Your task to perform on an android device: Add logitech g903 to the cart on target Image 0: 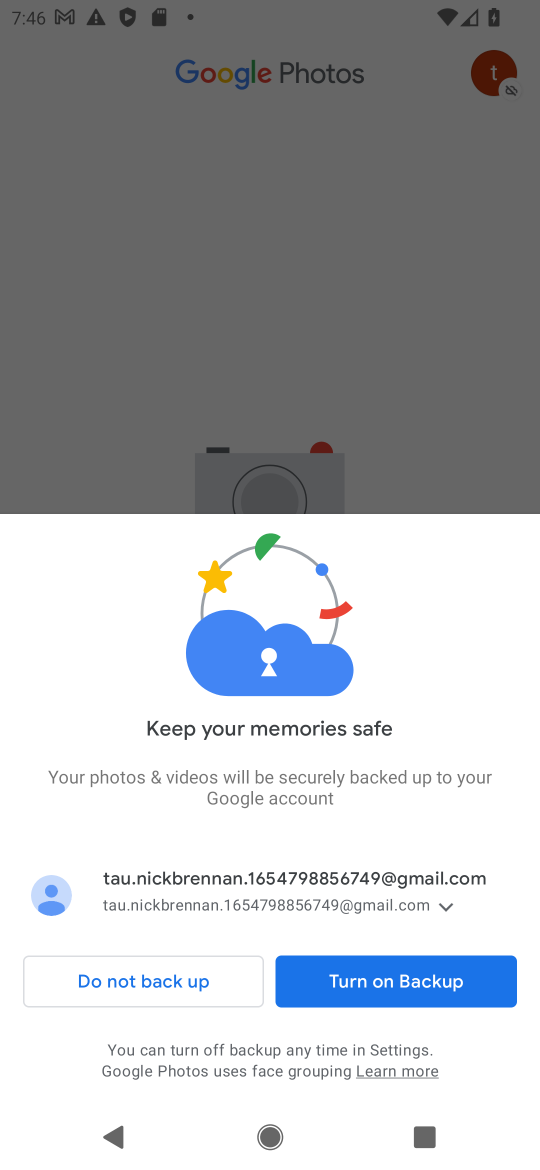
Step 0: press home button
Your task to perform on an android device: Add logitech g903 to the cart on target Image 1: 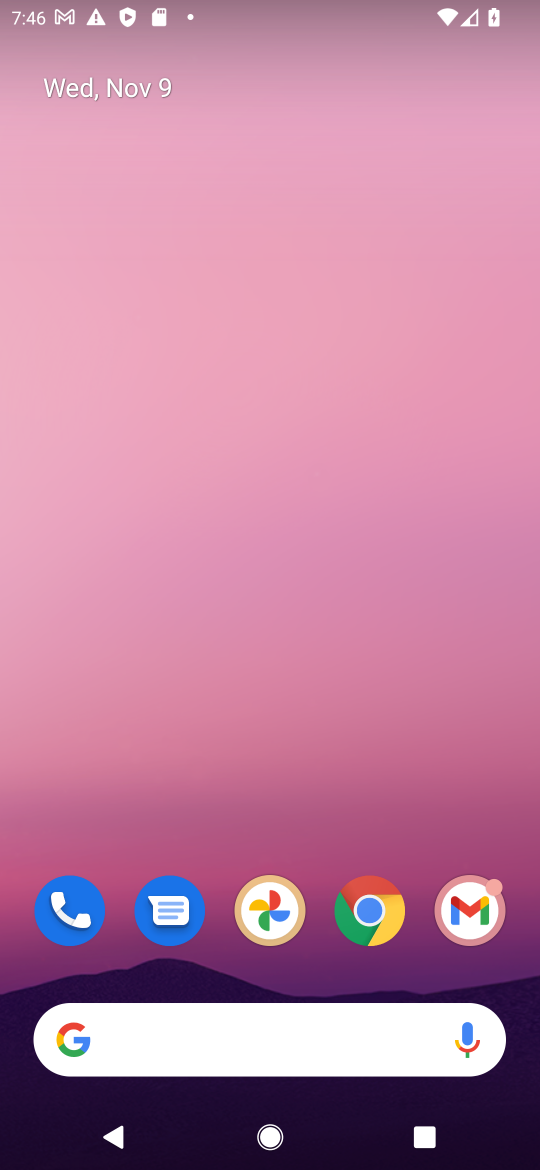
Step 1: click (371, 908)
Your task to perform on an android device: Add logitech g903 to the cart on target Image 2: 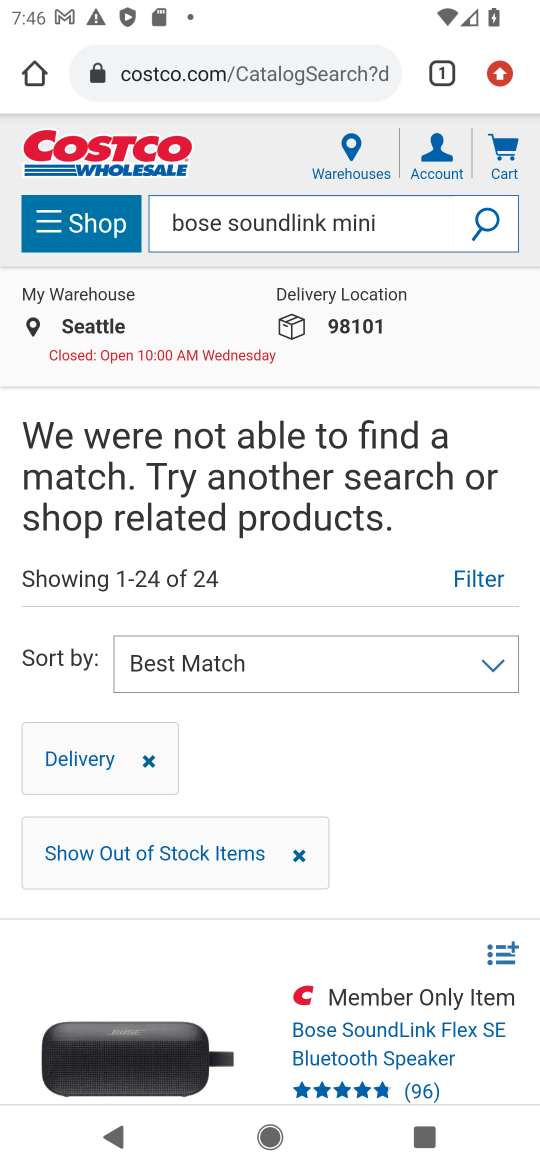
Step 2: click (185, 85)
Your task to perform on an android device: Add logitech g903 to the cart on target Image 3: 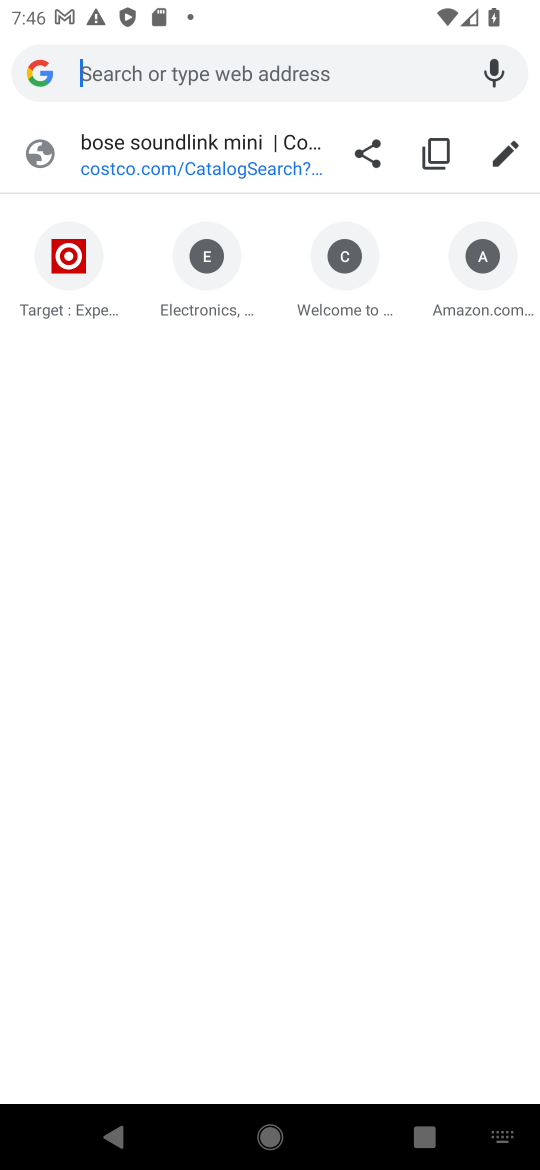
Step 3: click (59, 269)
Your task to perform on an android device: Add logitech g903 to the cart on target Image 4: 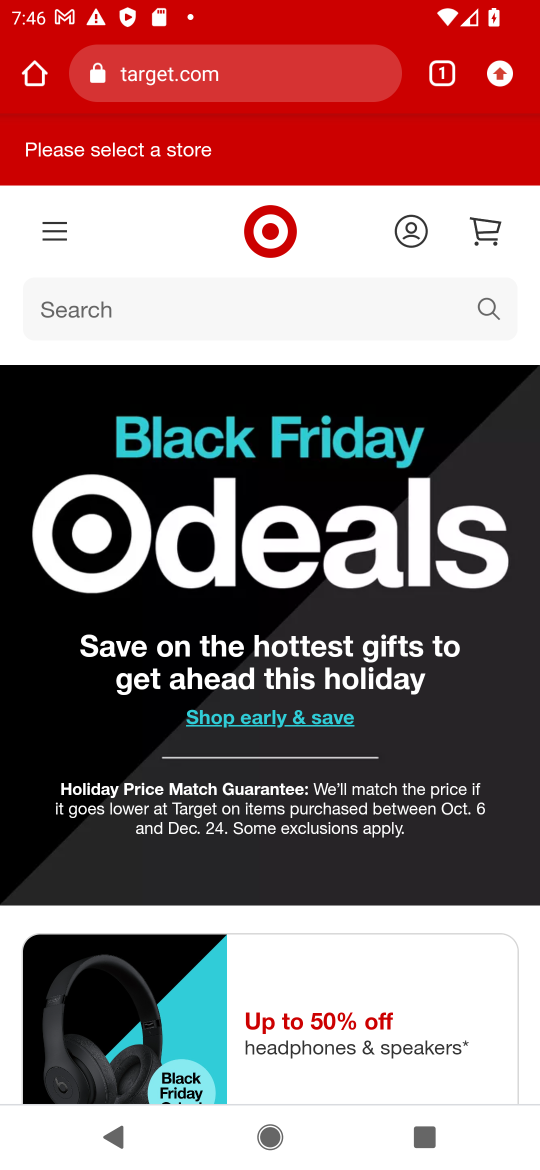
Step 4: click (477, 313)
Your task to perform on an android device: Add logitech g903 to the cart on target Image 5: 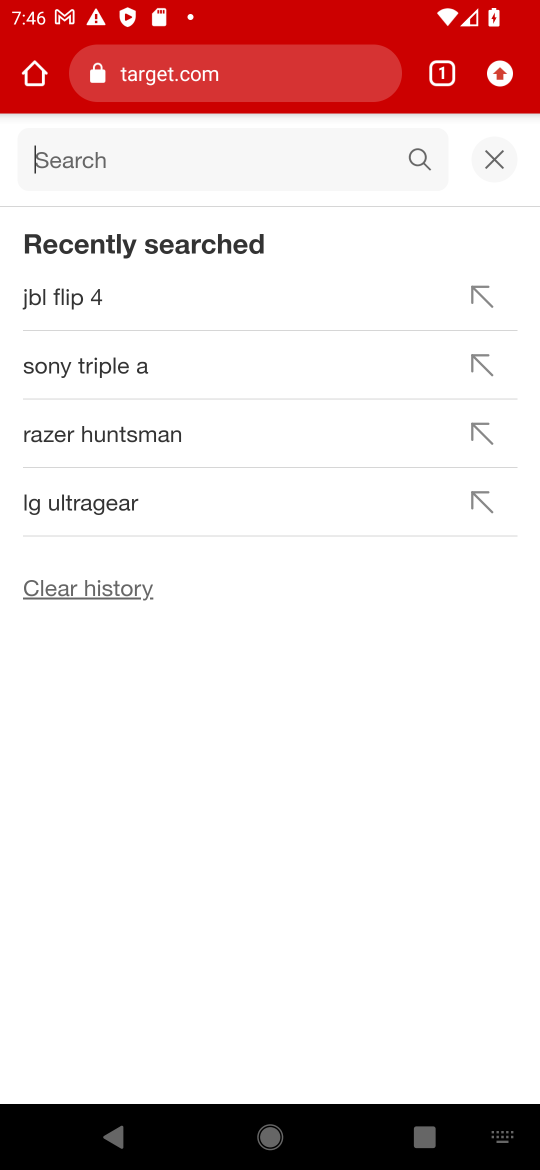
Step 5: type "logitech g903"
Your task to perform on an android device: Add logitech g903 to the cart on target Image 6: 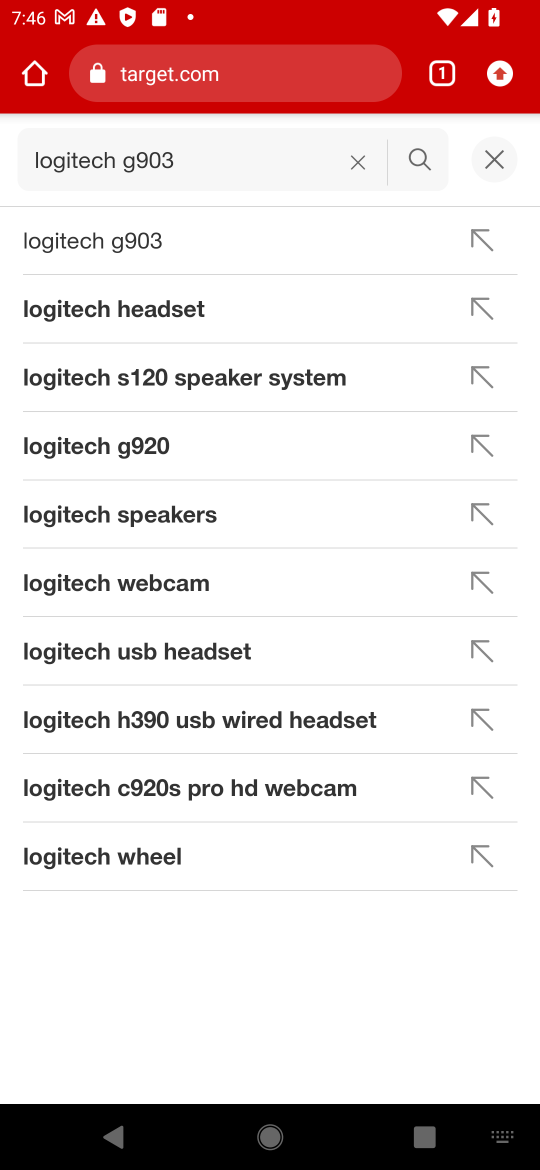
Step 6: click (119, 255)
Your task to perform on an android device: Add logitech g903 to the cart on target Image 7: 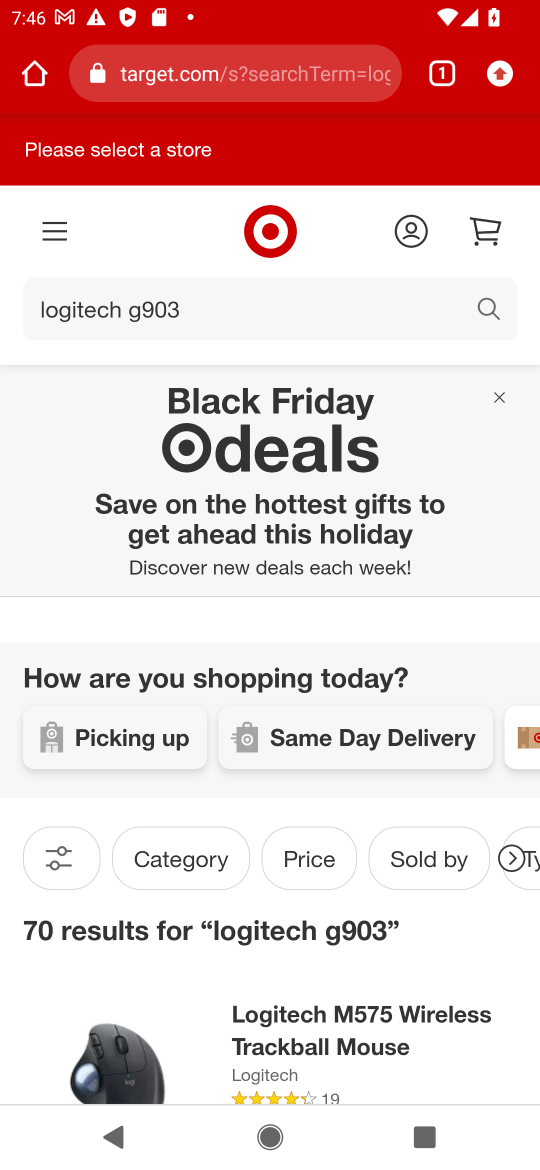
Step 7: task complete